Your task to perform on an android device: open the mobile data screen to see how much data has been used Image 0: 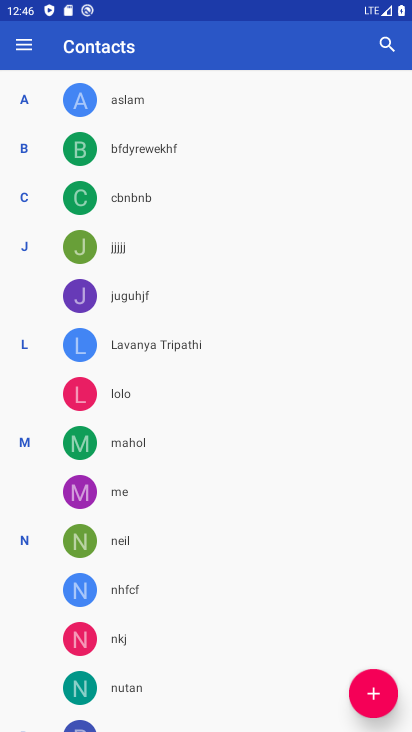
Step 0: press home button
Your task to perform on an android device: open the mobile data screen to see how much data has been used Image 1: 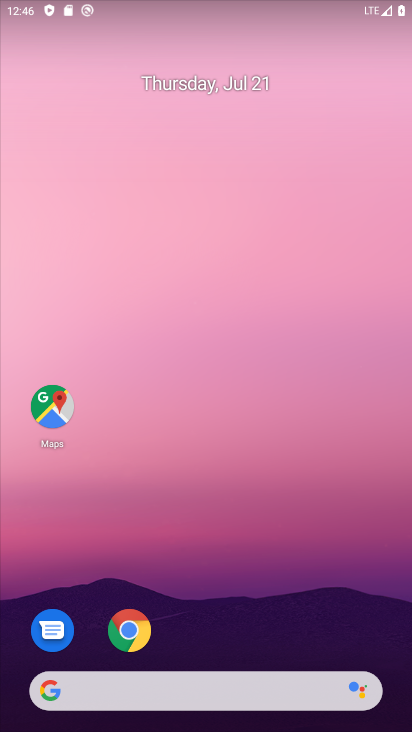
Step 1: drag from (201, 14) to (193, 512)
Your task to perform on an android device: open the mobile data screen to see how much data has been used Image 2: 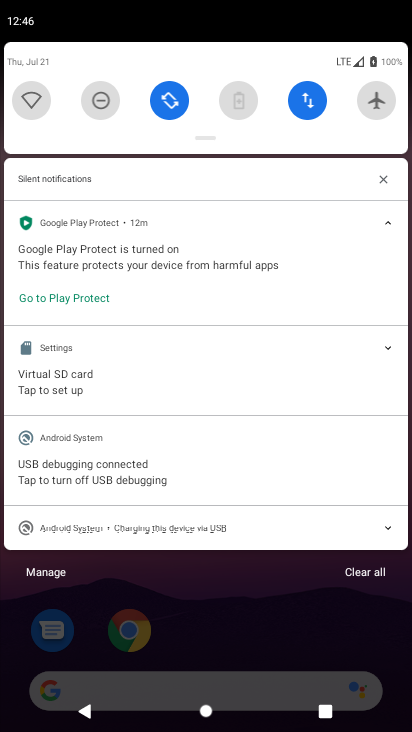
Step 2: click (295, 107)
Your task to perform on an android device: open the mobile data screen to see how much data has been used Image 3: 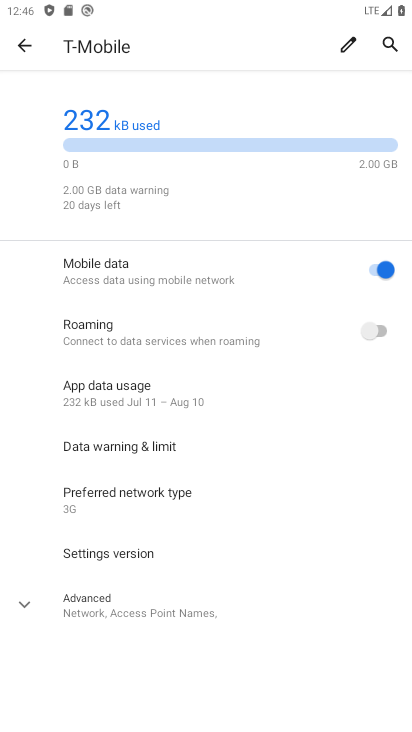
Step 3: task complete